Your task to perform on an android device: Go to Wikipedia Image 0: 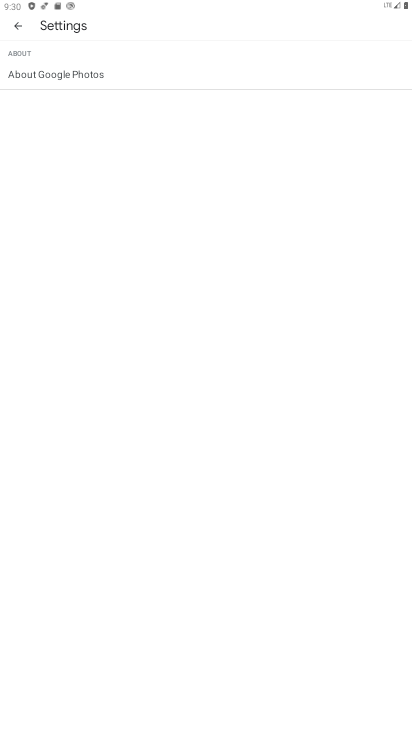
Step 0: press home button
Your task to perform on an android device: Go to Wikipedia Image 1: 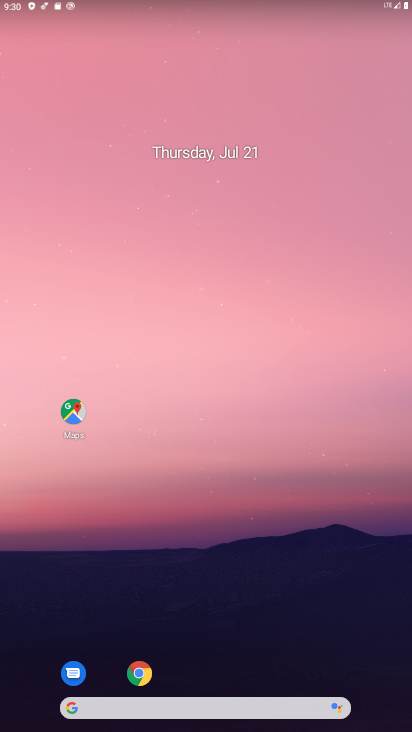
Step 1: click (133, 668)
Your task to perform on an android device: Go to Wikipedia Image 2: 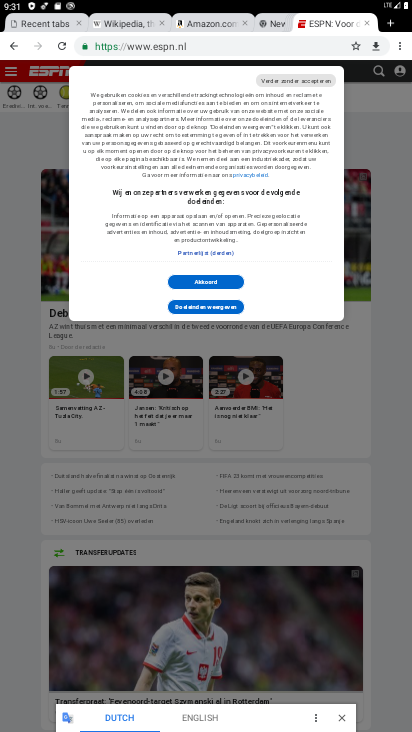
Step 2: click (391, 22)
Your task to perform on an android device: Go to Wikipedia Image 3: 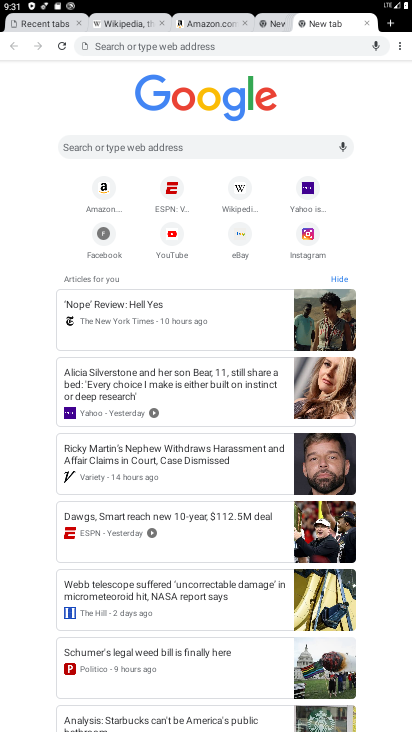
Step 3: click (232, 200)
Your task to perform on an android device: Go to Wikipedia Image 4: 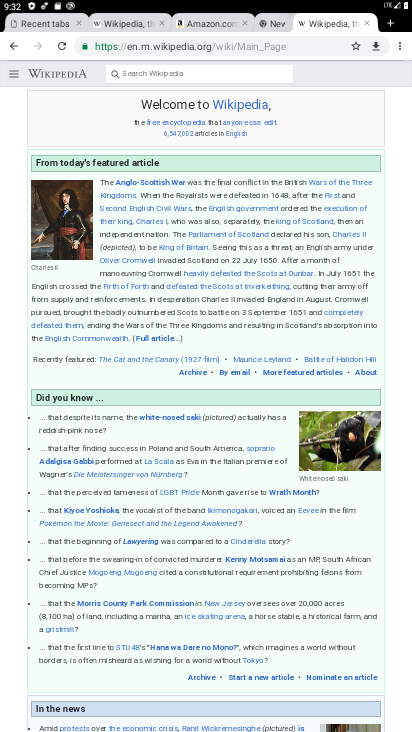
Step 4: task complete